Your task to perform on an android device: read, delete, or share a saved page in the chrome app Image 0: 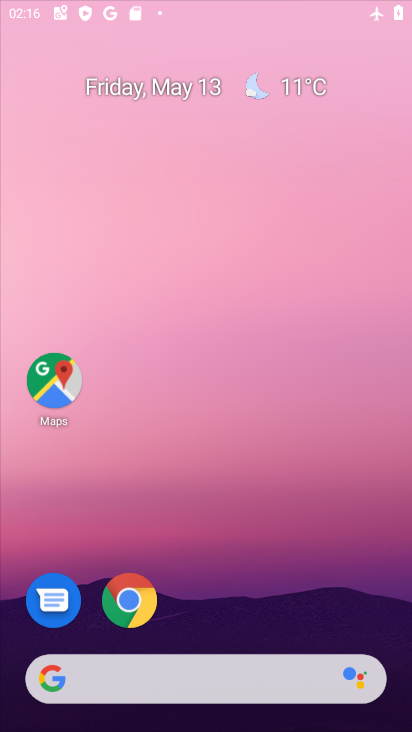
Step 0: click (314, 255)
Your task to perform on an android device: read, delete, or share a saved page in the chrome app Image 1: 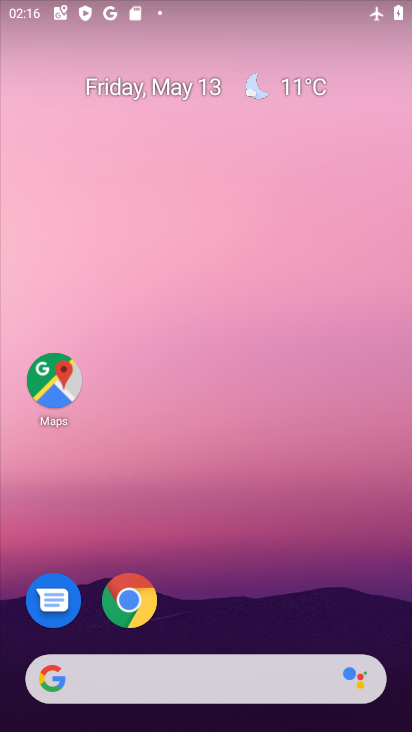
Step 1: drag from (196, 620) to (252, 87)
Your task to perform on an android device: read, delete, or share a saved page in the chrome app Image 2: 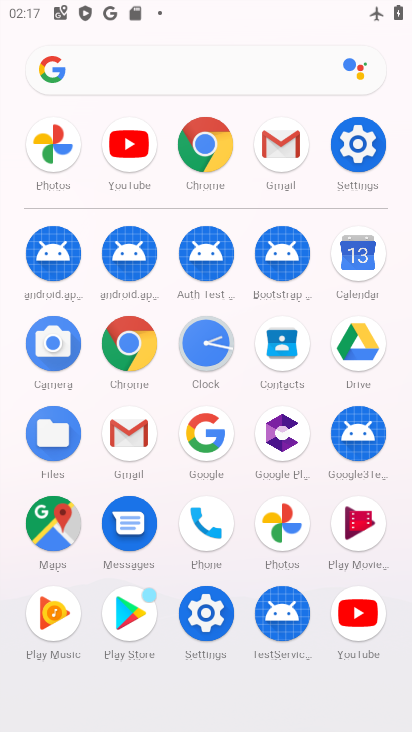
Step 2: click (137, 329)
Your task to perform on an android device: read, delete, or share a saved page in the chrome app Image 3: 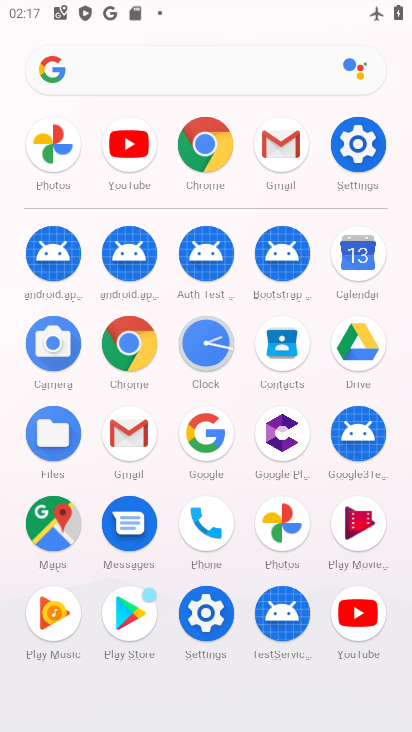
Step 3: click (137, 329)
Your task to perform on an android device: read, delete, or share a saved page in the chrome app Image 4: 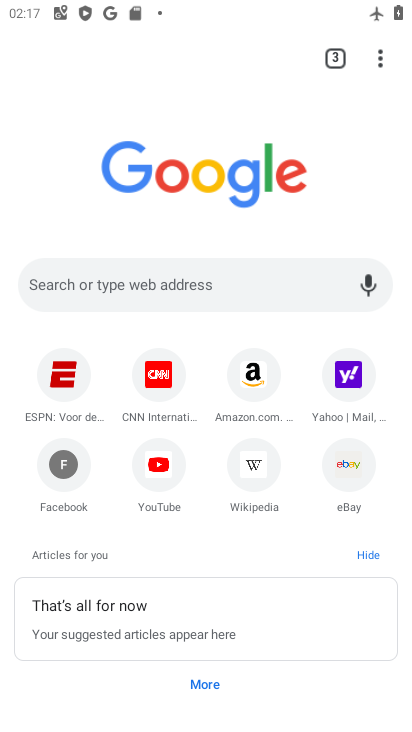
Step 4: click (381, 44)
Your task to perform on an android device: read, delete, or share a saved page in the chrome app Image 5: 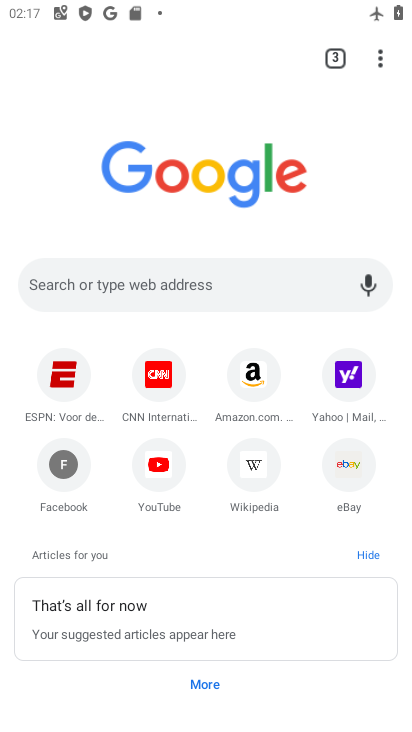
Step 5: drag from (380, 45) to (235, 216)
Your task to perform on an android device: read, delete, or share a saved page in the chrome app Image 6: 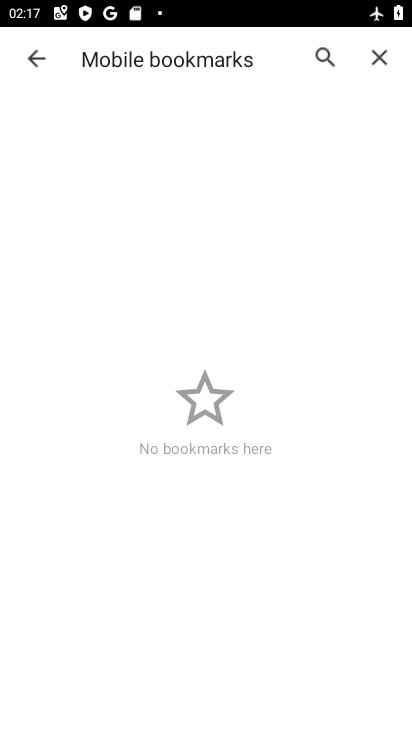
Step 6: drag from (254, 548) to (283, 291)
Your task to perform on an android device: read, delete, or share a saved page in the chrome app Image 7: 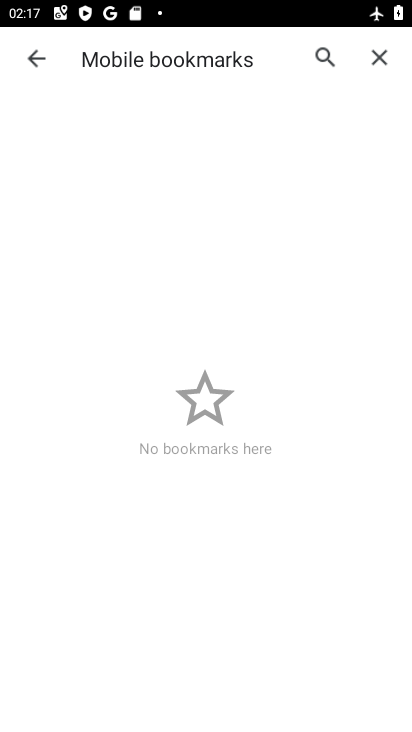
Step 7: click (283, 289)
Your task to perform on an android device: read, delete, or share a saved page in the chrome app Image 8: 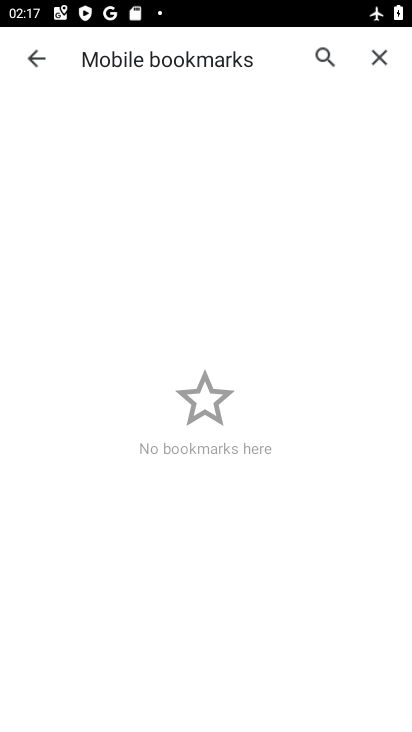
Step 8: click (283, 289)
Your task to perform on an android device: read, delete, or share a saved page in the chrome app Image 9: 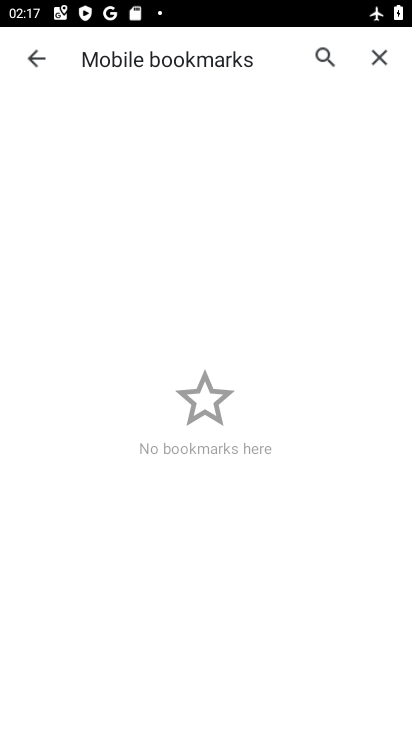
Step 9: task complete